Your task to perform on an android device: turn on airplane mode Image 0: 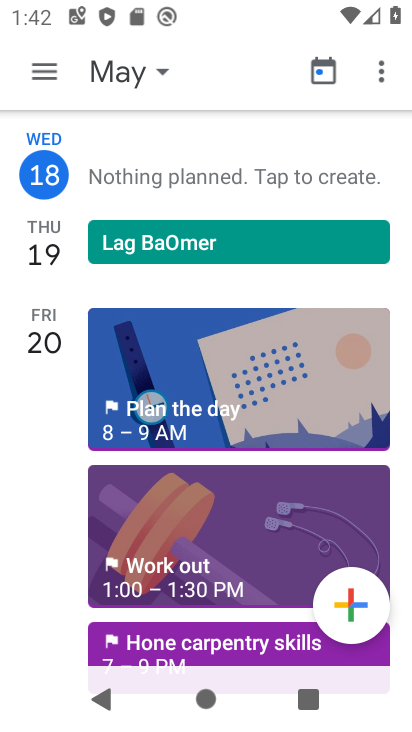
Step 0: press home button
Your task to perform on an android device: turn on airplane mode Image 1: 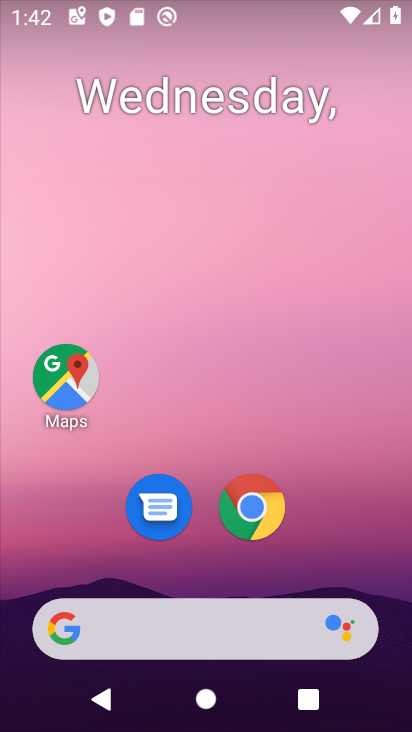
Step 1: drag from (376, 549) to (330, 205)
Your task to perform on an android device: turn on airplane mode Image 2: 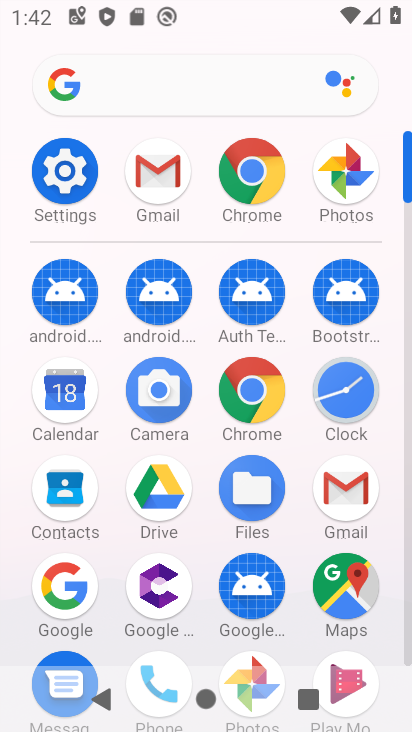
Step 2: click (52, 175)
Your task to perform on an android device: turn on airplane mode Image 3: 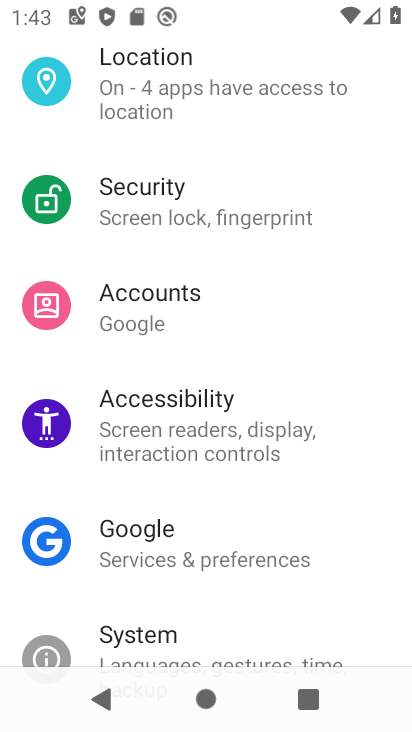
Step 3: drag from (287, 258) to (281, 545)
Your task to perform on an android device: turn on airplane mode Image 4: 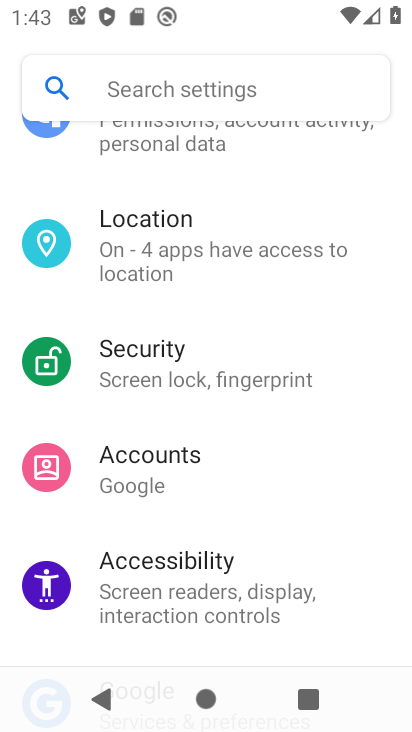
Step 4: drag from (268, 266) to (268, 636)
Your task to perform on an android device: turn on airplane mode Image 5: 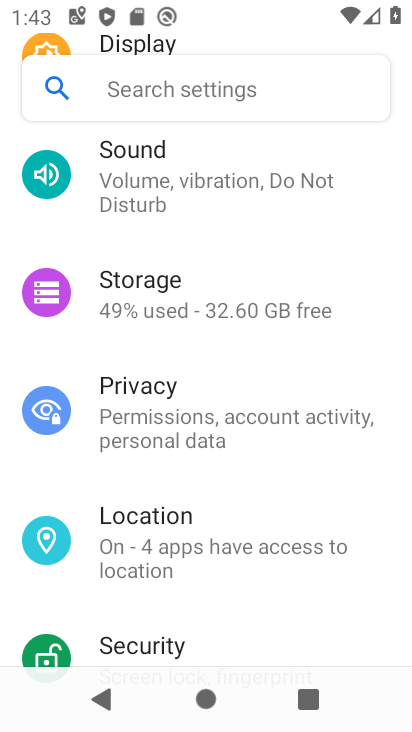
Step 5: drag from (288, 287) to (295, 707)
Your task to perform on an android device: turn on airplane mode Image 6: 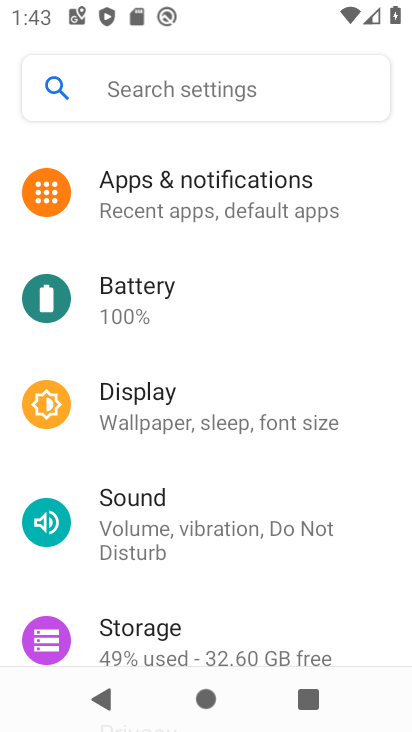
Step 6: drag from (271, 391) to (274, 697)
Your task to perform on an android device: turn on airplane mode Image 7: 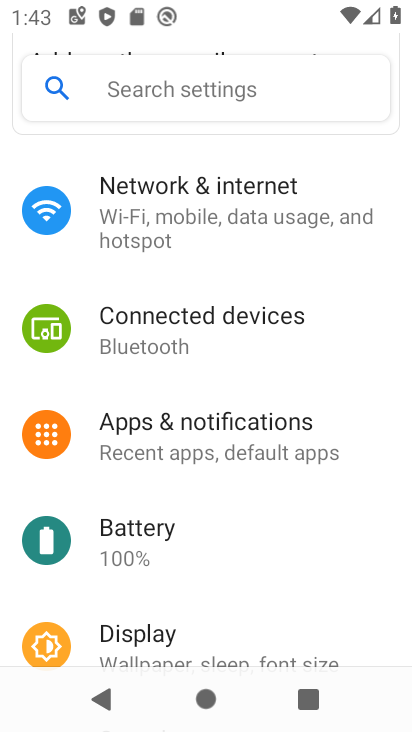
Step 7: click (281, 226)
Your task to perform on an android device: turn on airplane mode Image 8: 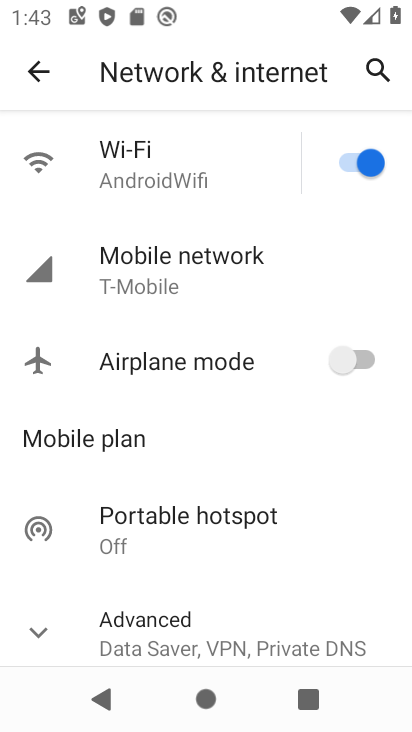
Step 8: click (374, 360)
Your task to perform on an android device: turn on airplane mode Image 9: 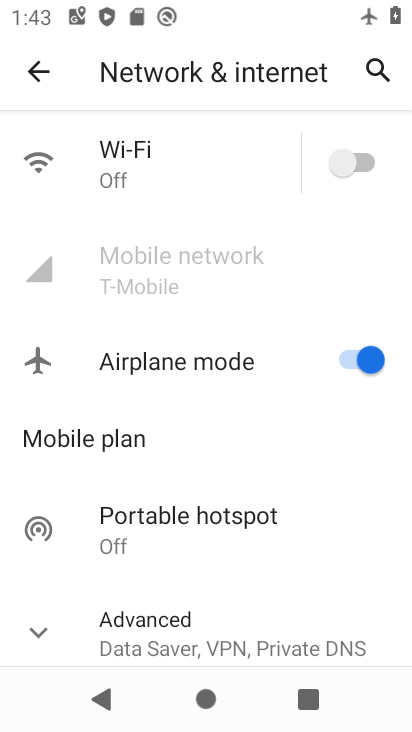
Step 9: task complete